Your task to perform on an android device: Open internet settings Image 0: 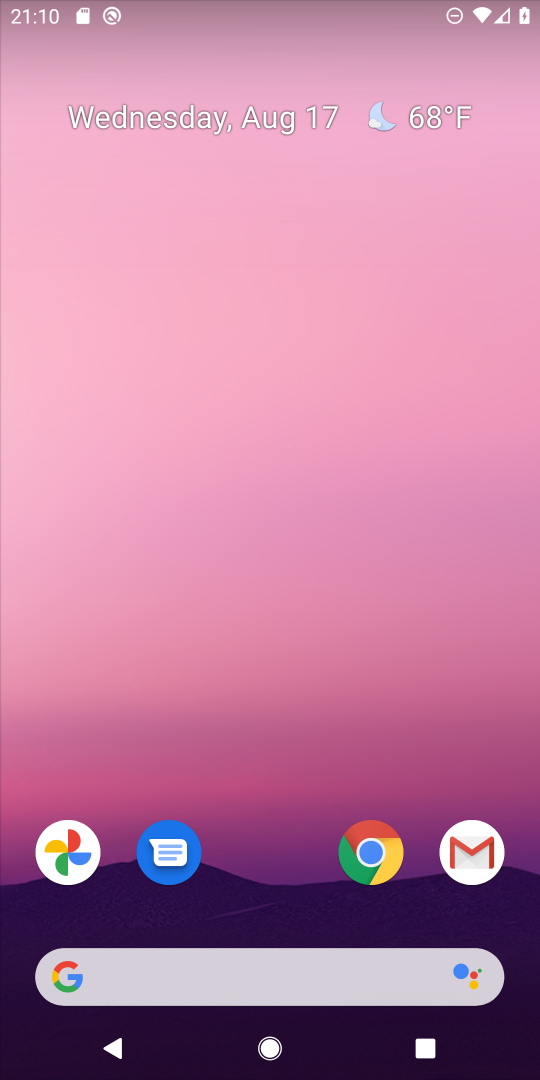
Step 0: drag from (261, 915) to (241, 194)
Your task to perform on an android device: Open internet settings Image 1: 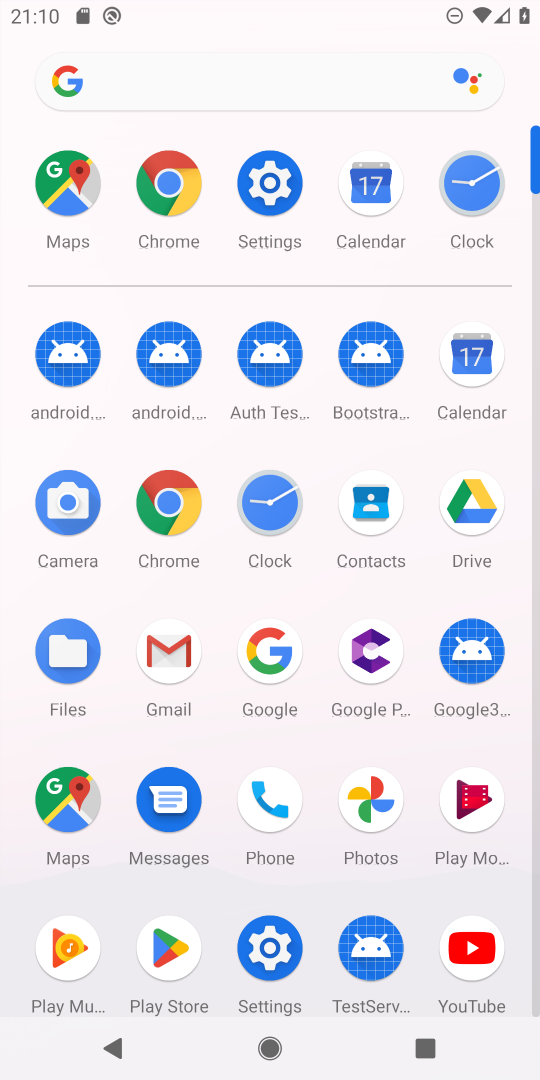
Step 1: click (271, 188)
Your task to perform on an android device: Open internet settings Image 2: 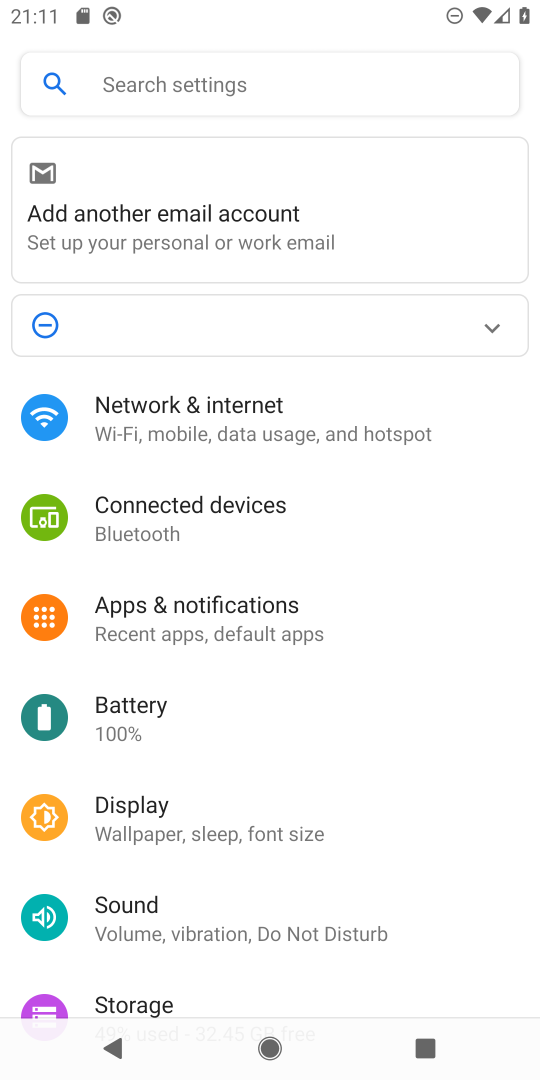
Step 2: click (191, 406)
Your task to perform on an android device: Open internet settings Image 3: 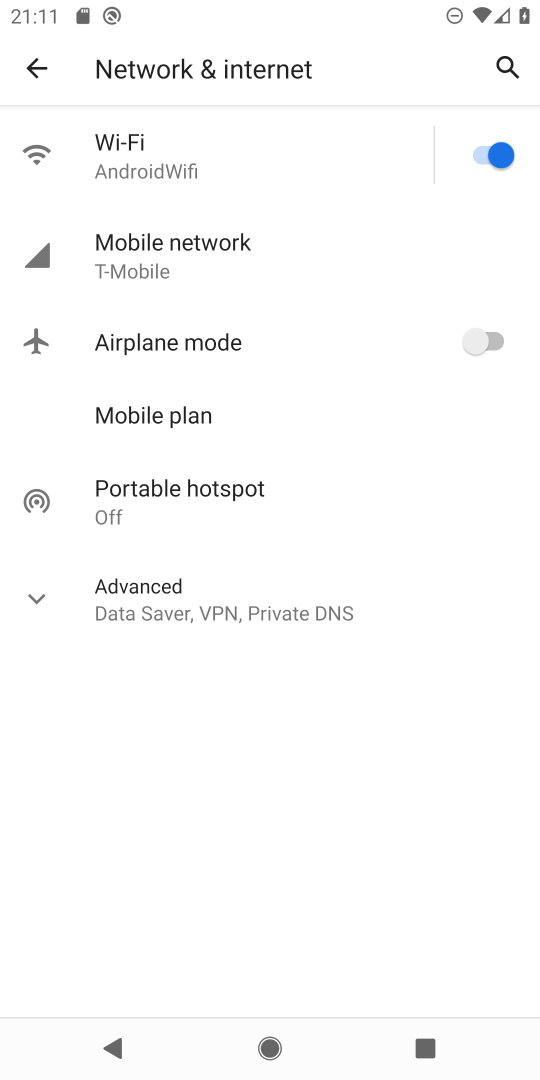
Step 3: task complete